Your task to perform on an android device: Do I have any events tomorrow? Image 0: 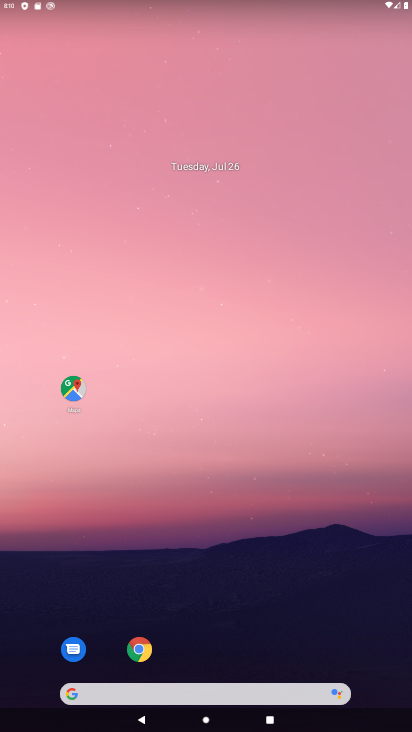
Step 0: click (190, 167)
Your task to perform on an android device: Do I have any events tomorrow? Image 1: 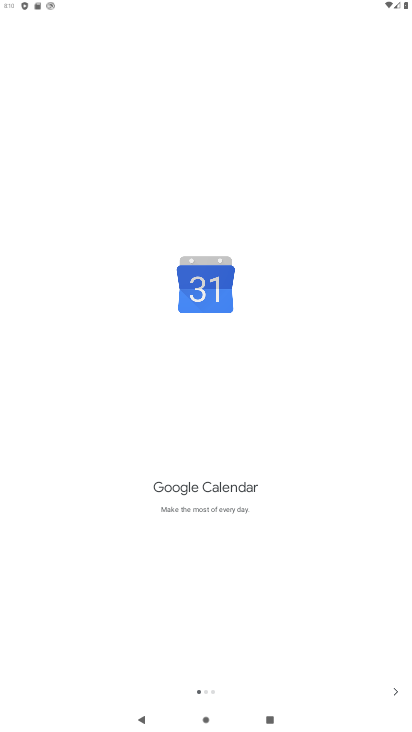
Step 1: click (393, 695)
Your task to perform on an android device: Do I have any events tomorrow? Image 2: 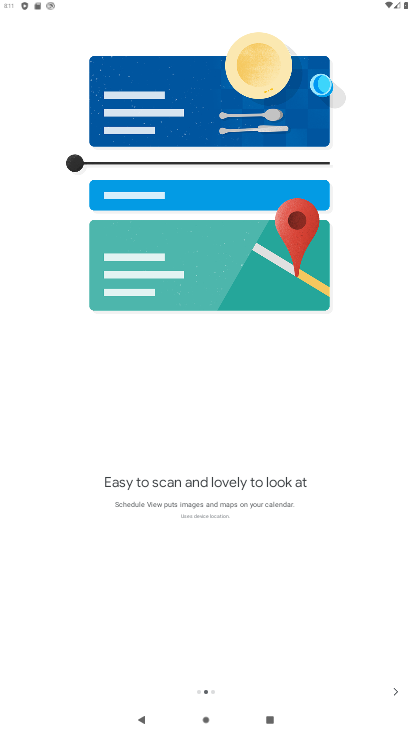
Step 2: click (393, 695)
Your task to perform on an android device: Do I have any events tomorrow? Image 3: 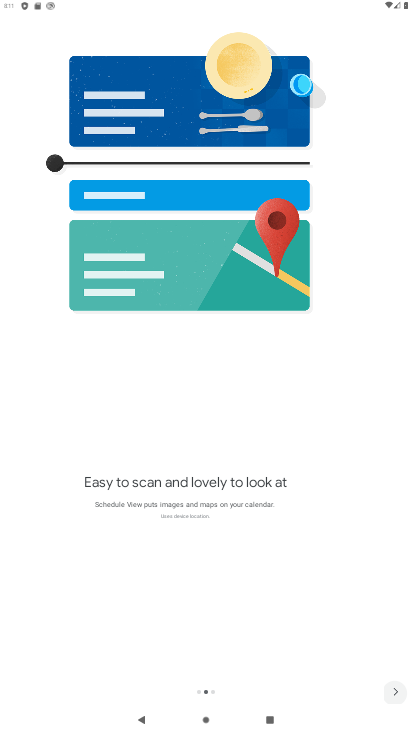
Step 3: click (393, 695)
Your task to perform on an android device: Do I have any events tomorrow? Image 4: 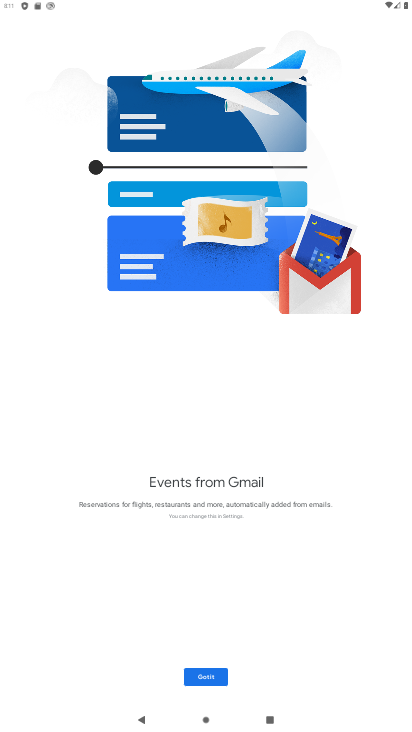
Step 4: click (393, 695)
Your task to perform on an android device: Do I have any events tomorrow? Image 5: 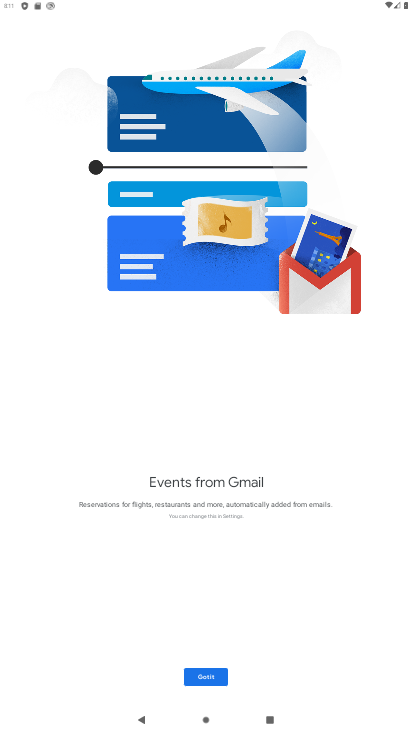
Step 5: click (208, 682)
Your task to perform on an android device: Do I have any events tomorrow? Image 6: 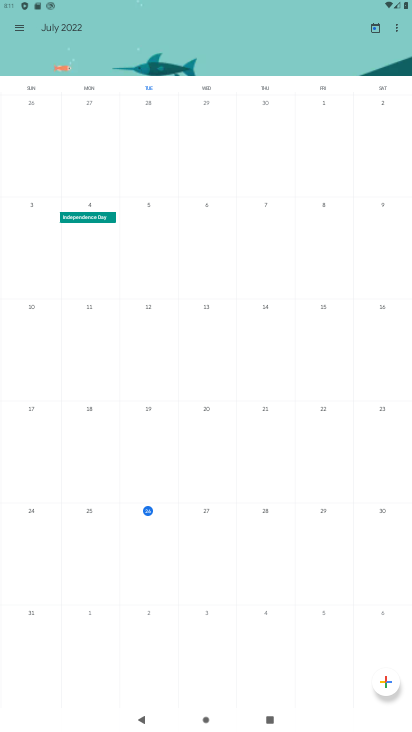
Step 6: click (207, 567)
Your task to perform on an android device: Do I have any events tomorrow? Image 7: 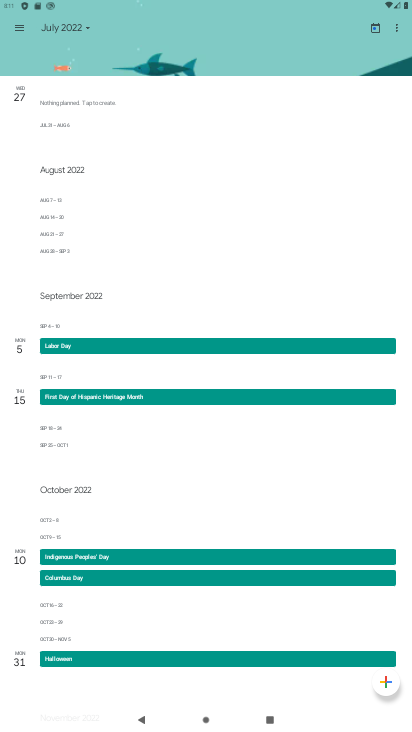
Step 7: task complete